Your task to perform on an android device: toggle sleep mode Image 0: 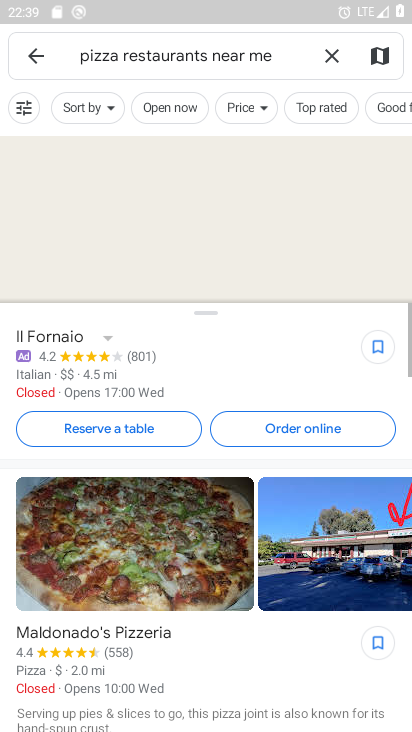
Step 0: press home button
Your task to perform on an android device: toggle sleep mode Image 1: 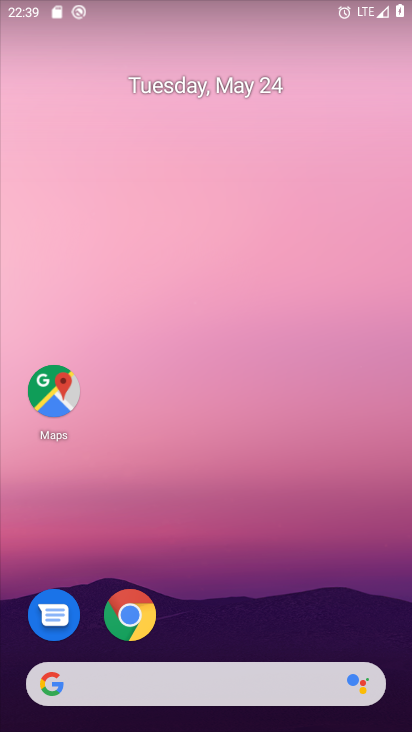
Step 1: drag from (278, 612) to (326, 192)
Your task to perform on an android device: toggle sleep mode Image 2: 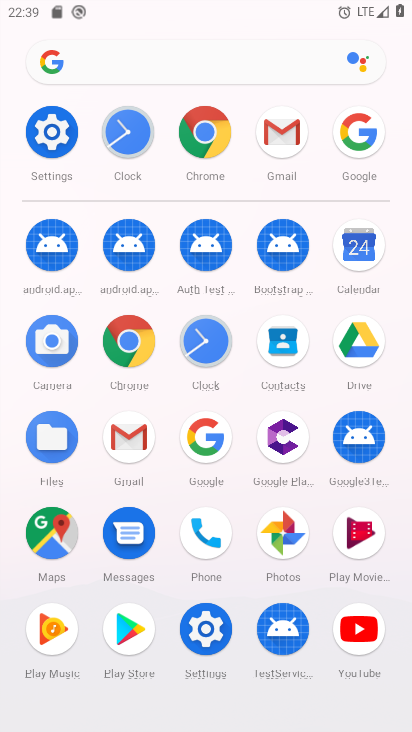
Step 2: click (53, 123)
Your task to perform on an android device: toggle sleep mode Image 3: 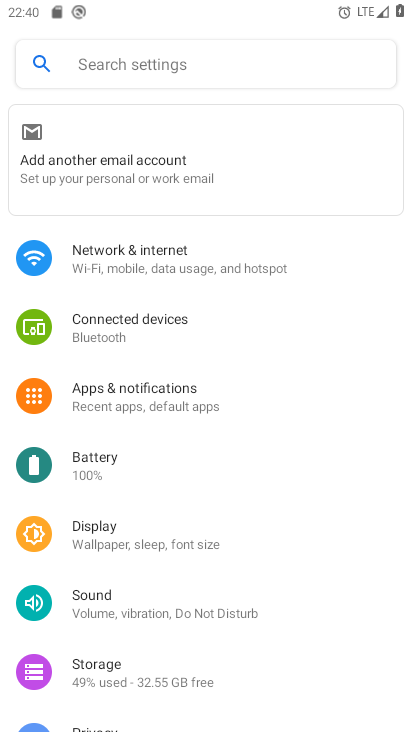
Step 3: task complete